Your task to perform on an android device: set default search engine in the chrome app Image 0: 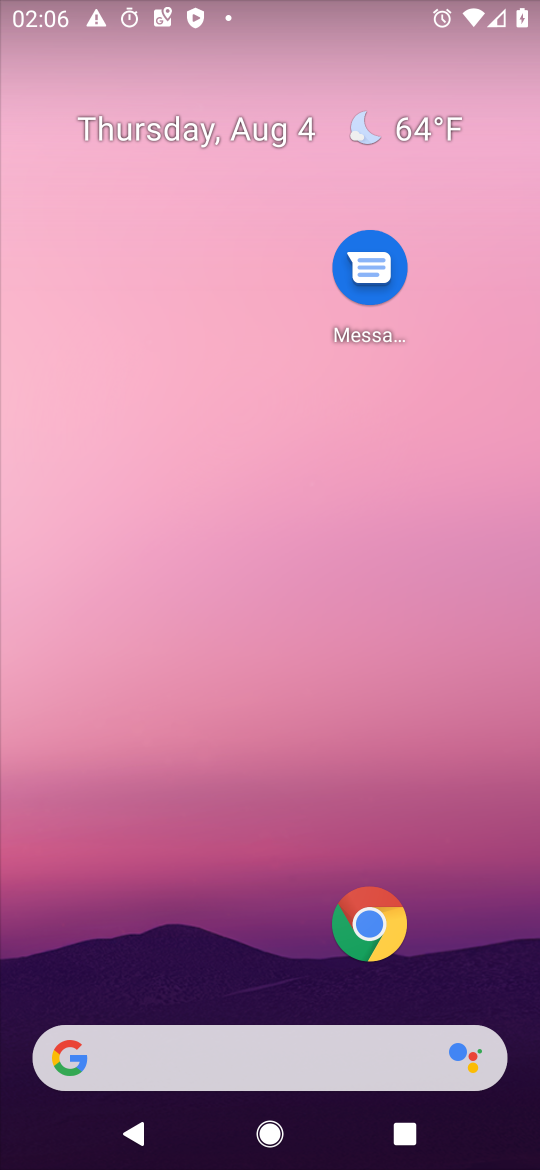
Step 0: click (345, 925)
Your task to perform on an android device: set default search engine in the chrome app Image 1: 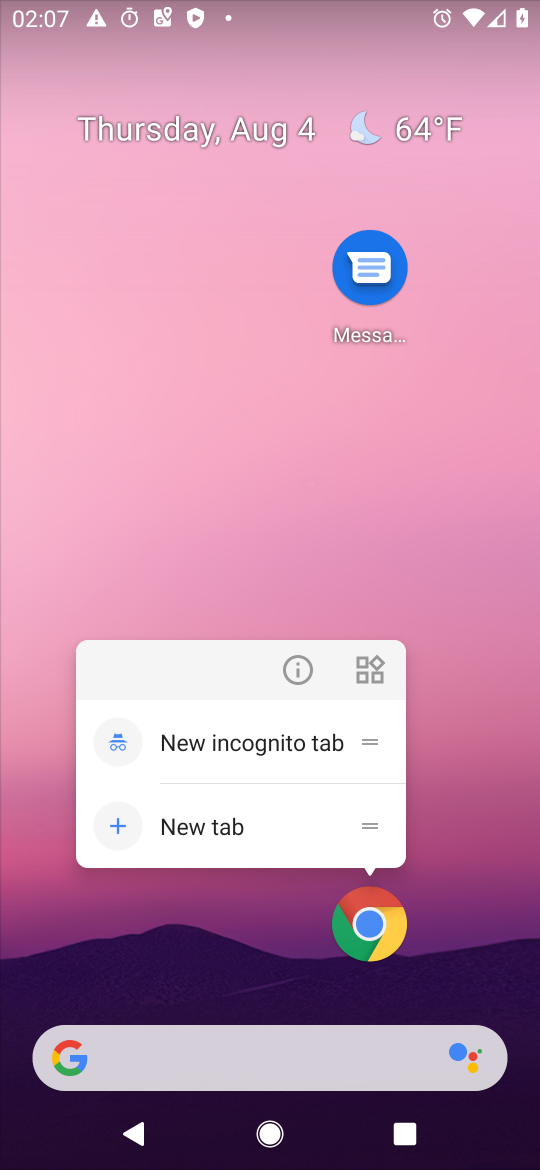
Step 1: click (345, 925)
Your task to perform on an android device: set default search engine in the chrome app Image 2: 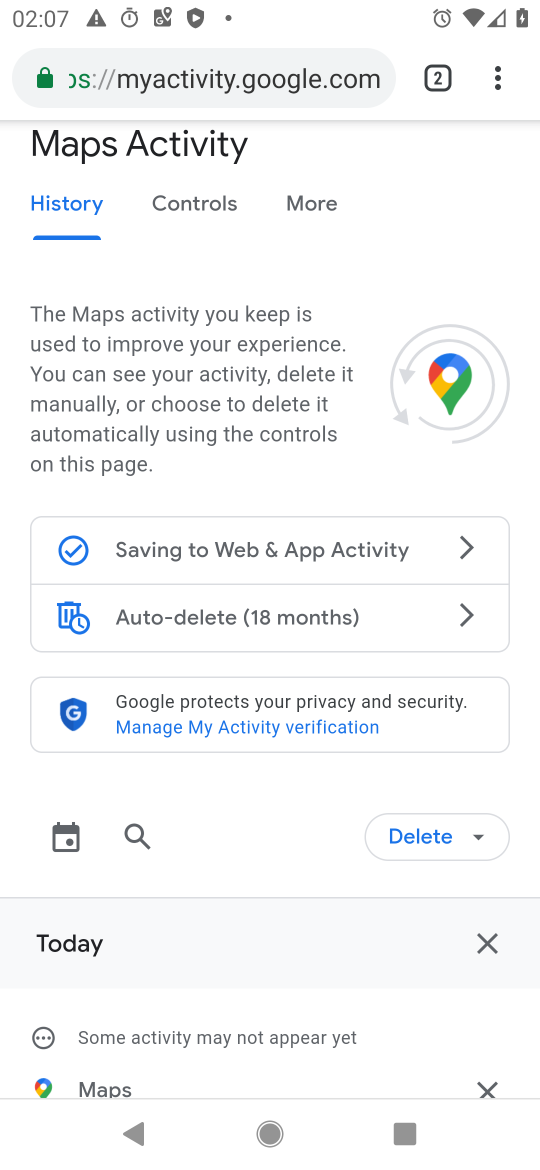
Step 2: click (496, 81)
Your task to perform on an android device: set default search engine in the chrome app Image 3: 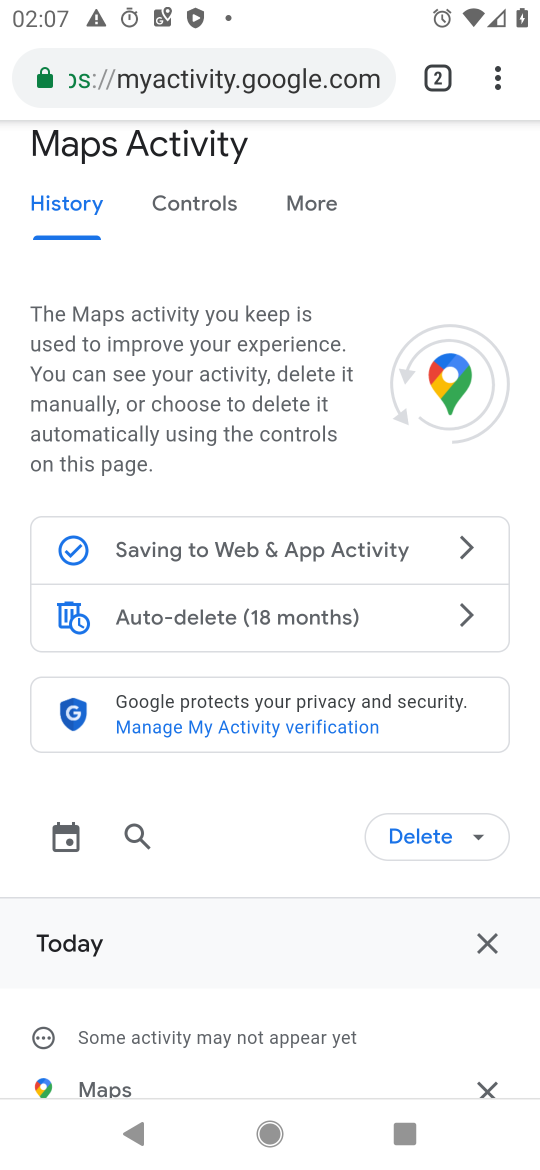
Step 3: click (498, 84)
Your task to perform on an android device: set default search engine in the chrome app Image 4: 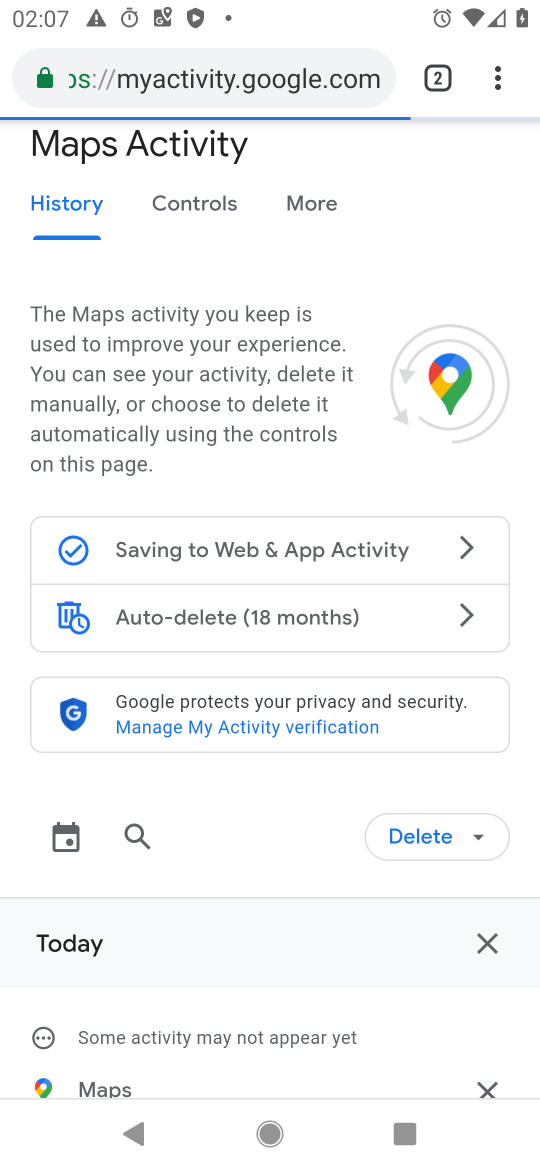
Step 4: click (499, 72)
Your task to perform on an android device: set default search engine in the chrome app Image 5: 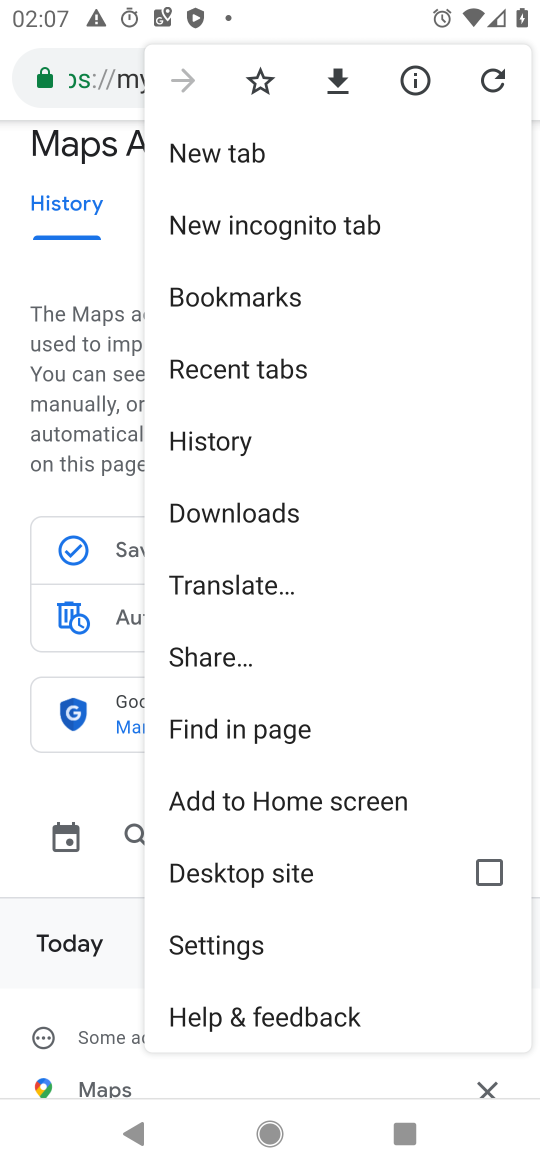
Step 5: click (218, 934)
Your task to perform on an android device: set default search engine in the chrome app Image 6: 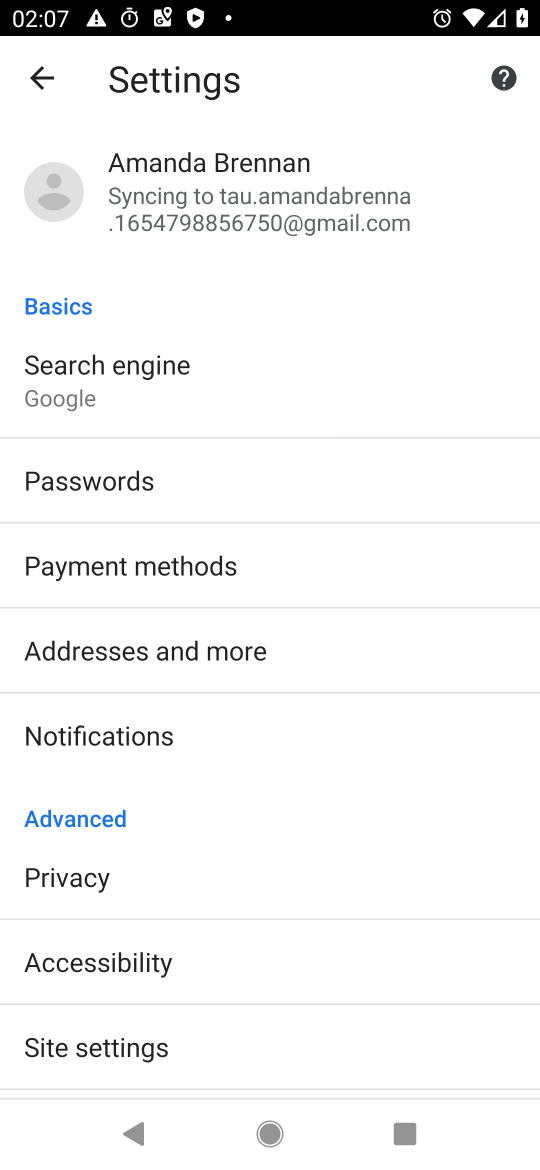
Step 6: click (153, 406)
Your task to perform on an android device: set default search engine in the chrome app Image 7: 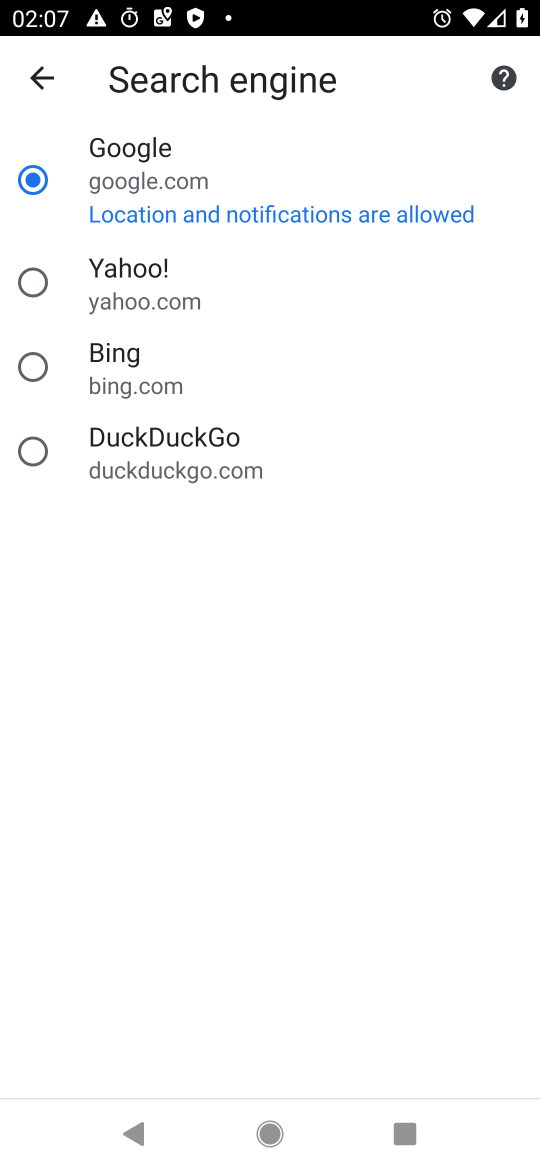
Step 7: task complete